Your task to perform on an android device: toggle location history Image 0: 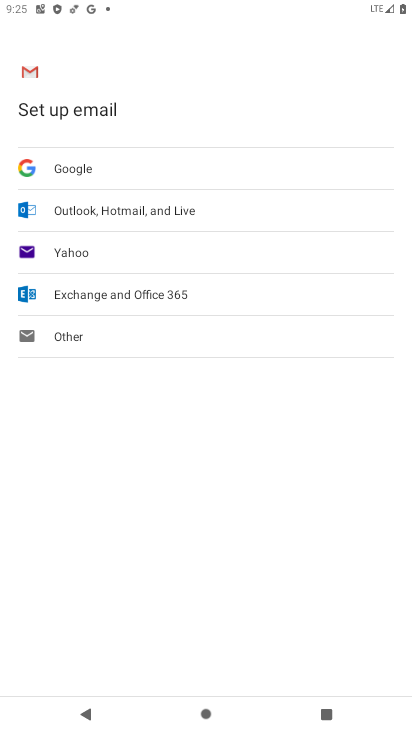
Step 0: press home button
Your task to perform on an android device: toggle location history Image 1: 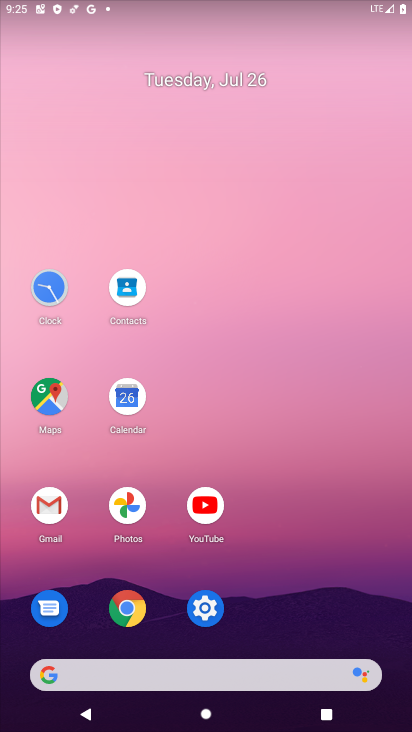
Step 1: click (40, 399)
Your task to perform on an android device: toggle location history Image 2: 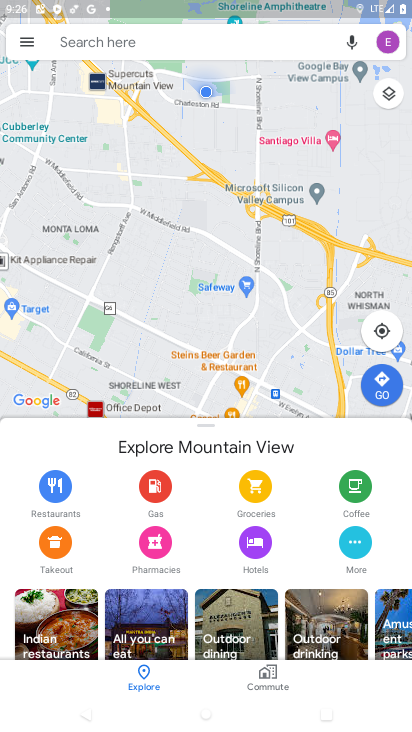
Step 2: click (15, 38)
Your task to perform on an android device: toggle location history Image 3: 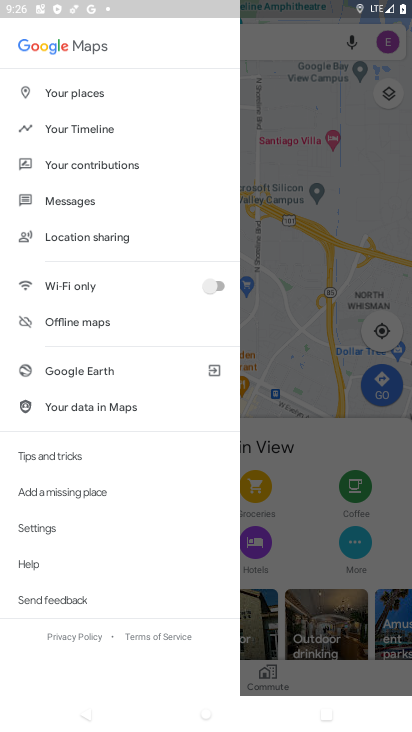
Step 3: click (72, 125)
Your task to perform on an android device: toggle location history Image 4: 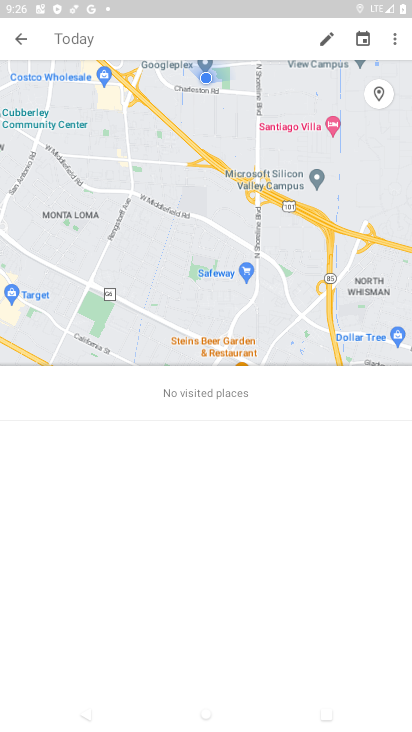
Step 4: click (396, 38)
Your task to perform on an android device: toggle location history Image 5: 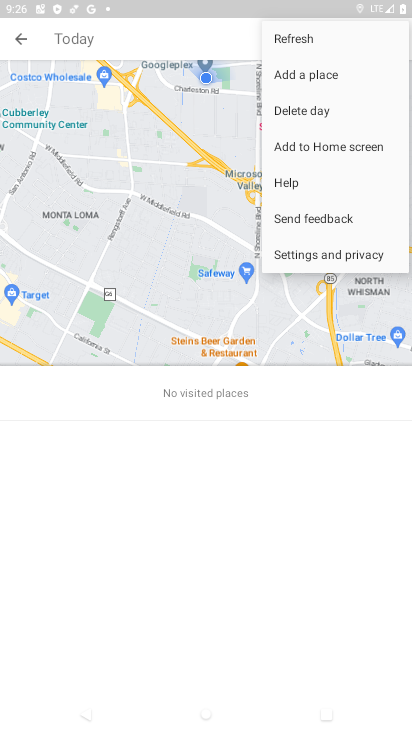
Step 5: click (312, 250)
Your task to perform on an android device: toggle location history Image 6: 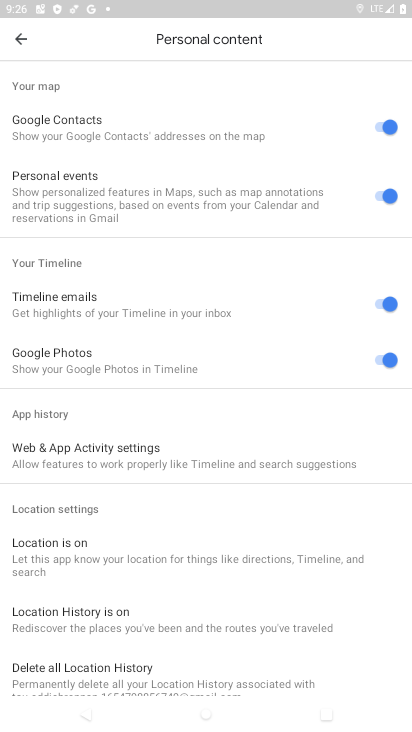
Step 6: click (79, 613)
Your task to perform on an android device: toggle location history Image 7: 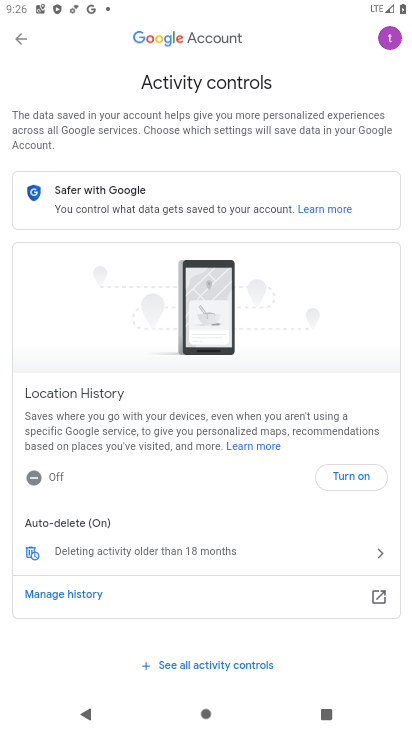
Step 7: click (350, 476)
Your task to perform on an android device: toggle location history Image 8: 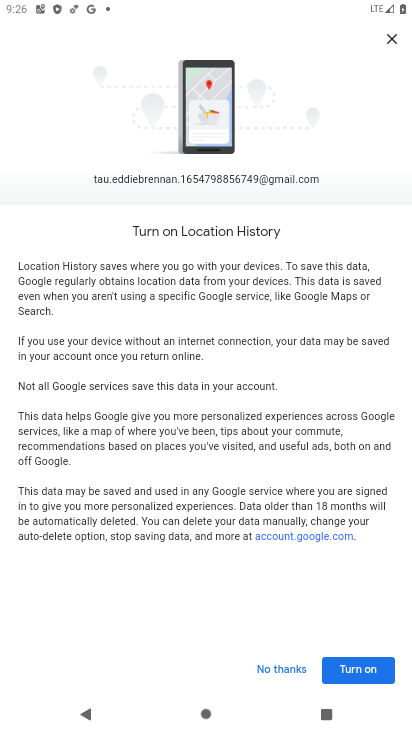
Step 8: click (356, 672)
Your task to perform on an android device: toggle location history Image 9: 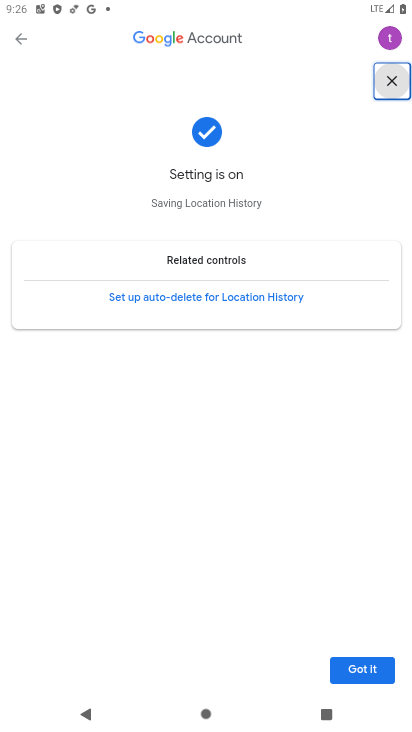
Step 9: click (364, 668)
Your task to perform on an android device: toggle location history Image 10: 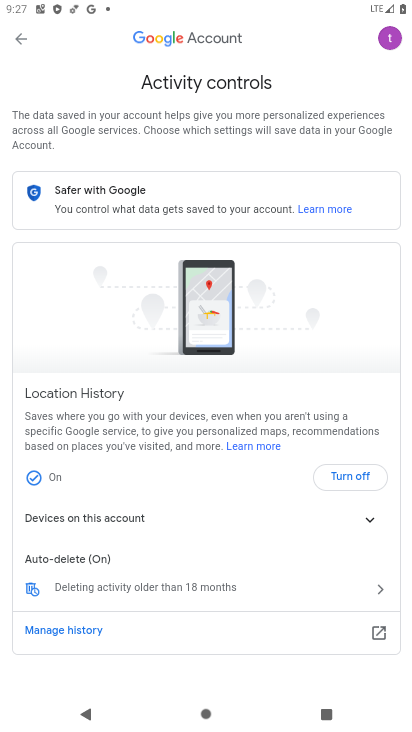
Step 10: task complete